Your task to perform on an android device: Empty the shopping cart on target.com. Search for "razer naga" on target.com, select the first entry, and add it to the cart. Image 0: 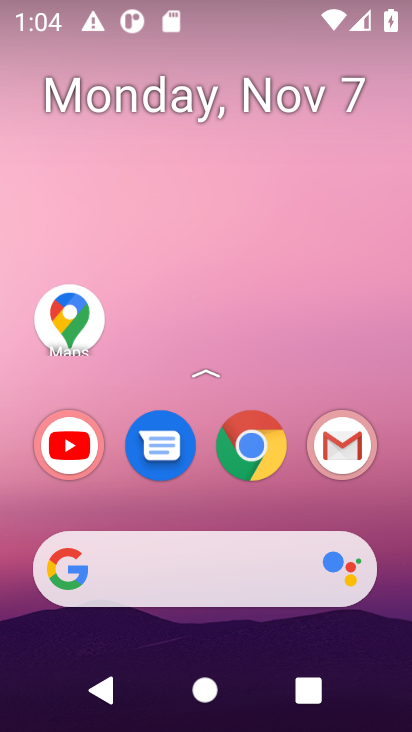
Step 0: click (247, 463)
Your task to perform on an android device: Empty the shopping cart on target.com. Search for "razer naga" on target.com, select the first entry, and add it to the cart. Image 1: 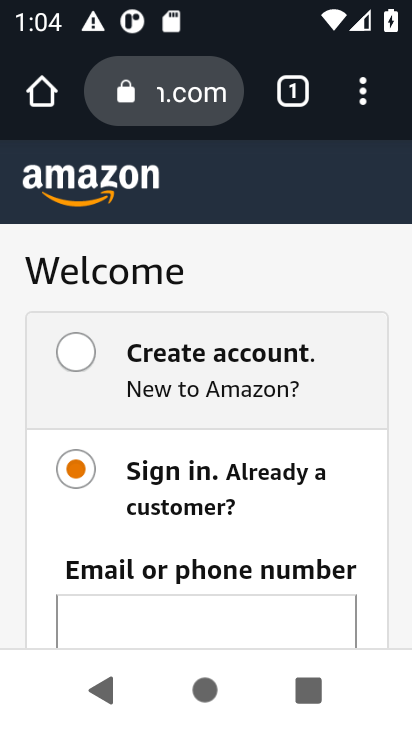
Step 1: click (188, 107)
Your task to perform on an android device: Empty the shopping cart on target.com. Search for "razer naga" on target.com, select the first entry, and add it to the cart. Image 2: 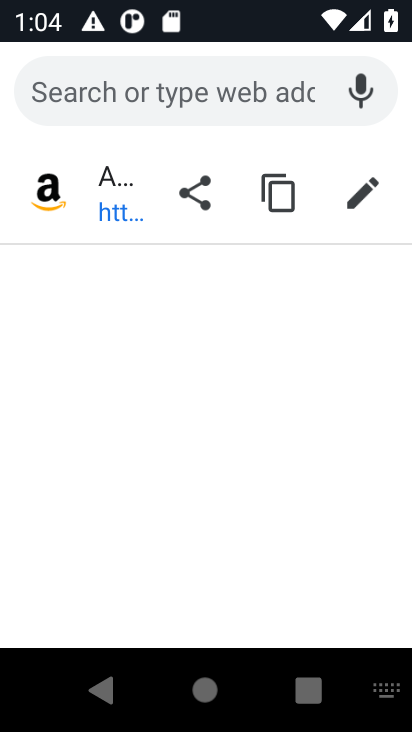
Step 2: type "target.com"
Your task to perform on an android device: Empty the shopping cart on target.com. Search for "razer naga" on target.com, select the first entry, and add it to the cart. Image 3: 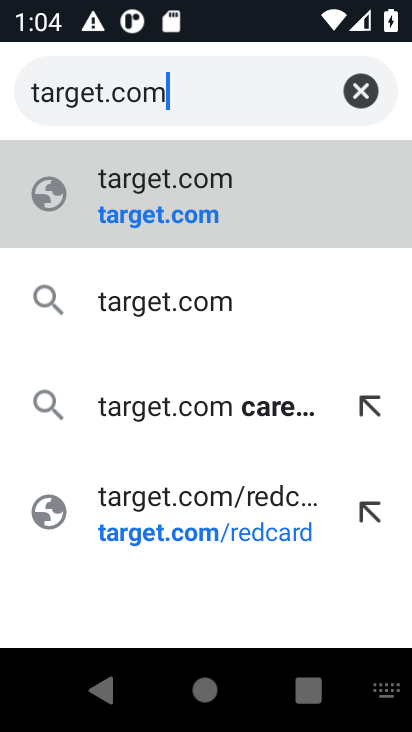
Step 3: click (200, 305)
Your task to perform on an android device: Empty the shopping cart on target.com. Search for "razer naga" on target.com, select the first entry, and add it to the cart. Image 4: 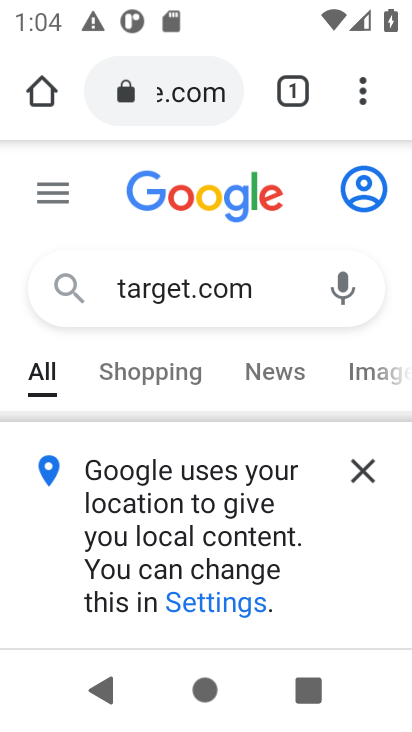
Step 4: click (368, 467)
Your task to perform on an android device: Empty the shopping cart on target.com. Search for "razer naga" on target.com, select the first entry, and add it to the cart. Image 5: 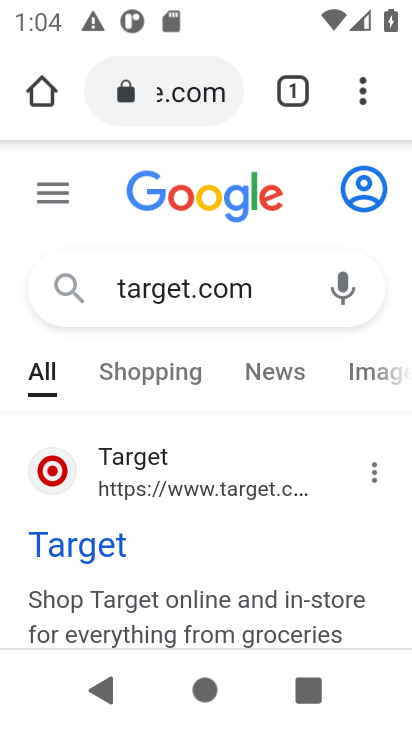
Step 5: click (240, 484)
Your task to perform on an android device: Empty the shopping cart on target.com. Search for "razer naga" on target.com, select the first entry, and add it to the cart. Image 6: 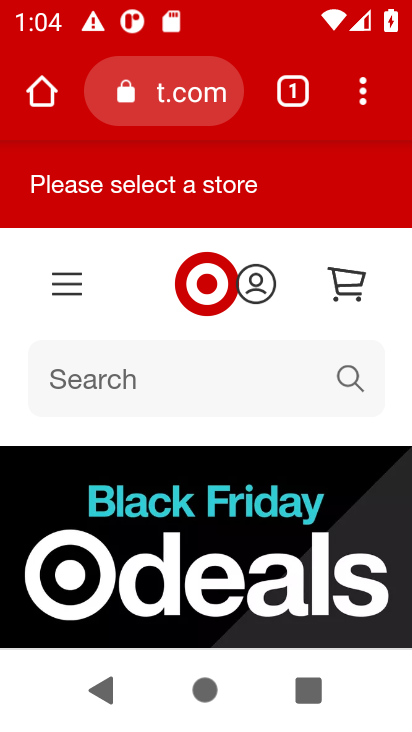
Step 6: click (354, 292)
Your task to perform on an android device: Empty the shopping cart on target.com. Search for "razer naga" on target.com, select the first entry, and add it to the cart. Image 7: 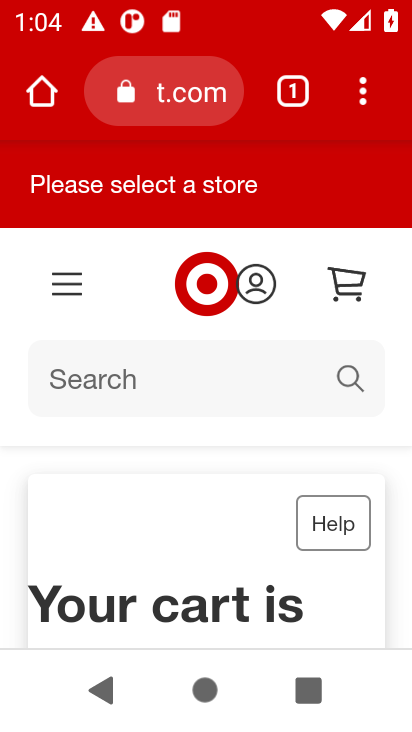
Step 7: click (337, 370)
Your task to perform on an android device: Empty the shopping cart on target.com. Search for "razer naga" on target.com, select the first entry, and add it to the cart. Image 8: 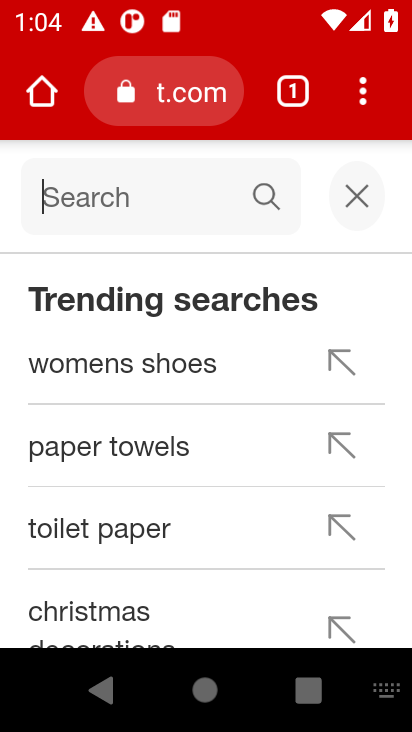
Step 8: type "razer naga"
Your task to perform on an android device: Empty the shopping cart on target.com. Search for "razer naga" on target.com, select the first entry, and add it to the cart. Image 9: 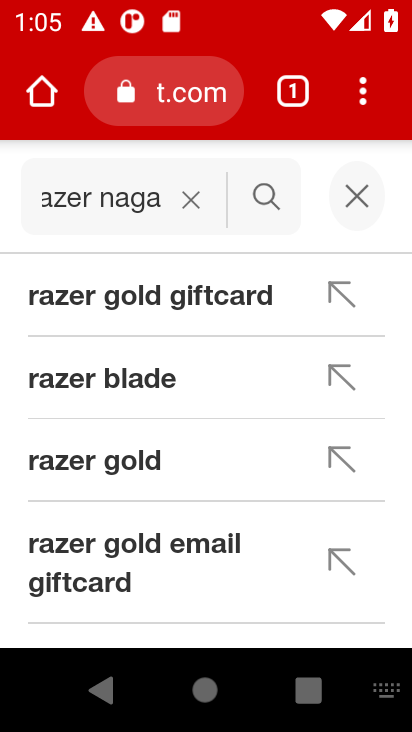
Step 9: click (137, 197)
Your task to perform on an android device: Empty the shopping cart on target.com. Search for "razer naga" on target.com, select the first entry, and add it to the cart. Image 10: 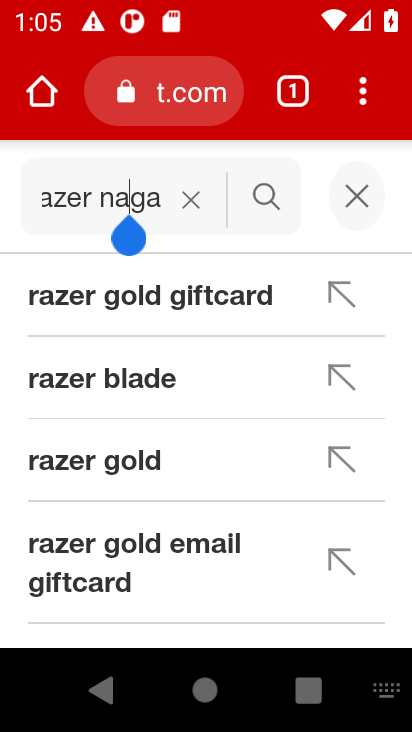
Step 10: click (314, 154)
Your task to perform on an android device: Empty the shopping cart on target.com. Search for "razer naga" on target.com, select the first entry, and add it to the cart. Image 11: 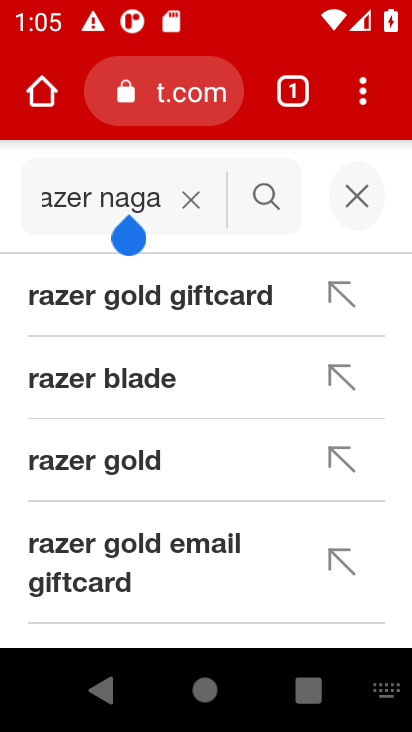
Step 11: task complete